Your task to perform on an android device: Go to Google Image 0: 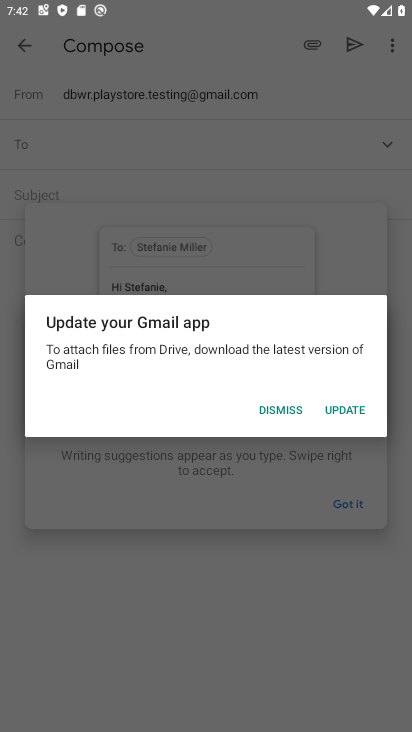
Step 0: press home button
Your task to perform on an android device: Go to Google Image 1: 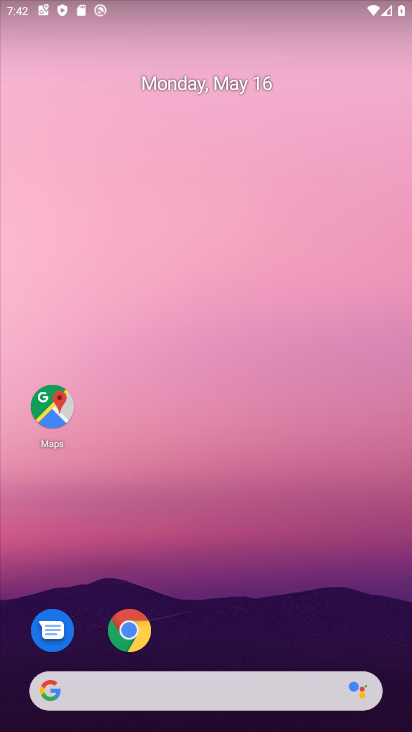
Step 1: drag from (291, 639) to (224, 57)
Your task to perform on an android device: Go to Google Image 2: 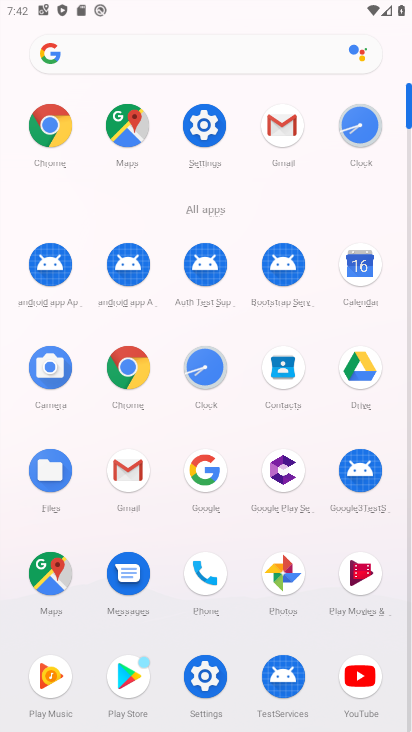
Step 2: click (192, 462)
Your task to perform on an android device: Go to Google Image 3: 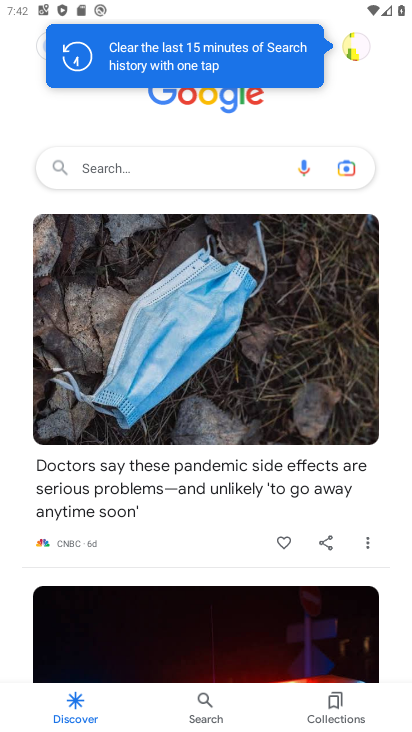
Step 3: task complete